Your task to perform on an android device: Go to display settings Image 0: 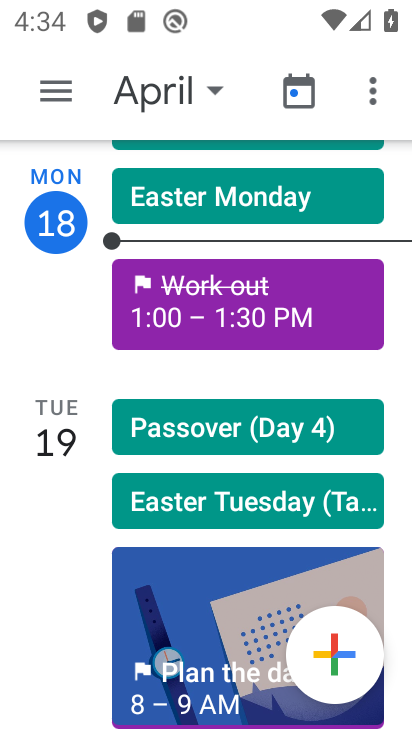
Step 0: drag from (185, 555) to (262, 155)
Your task to perform on an android device: Go to display settings Image 1: 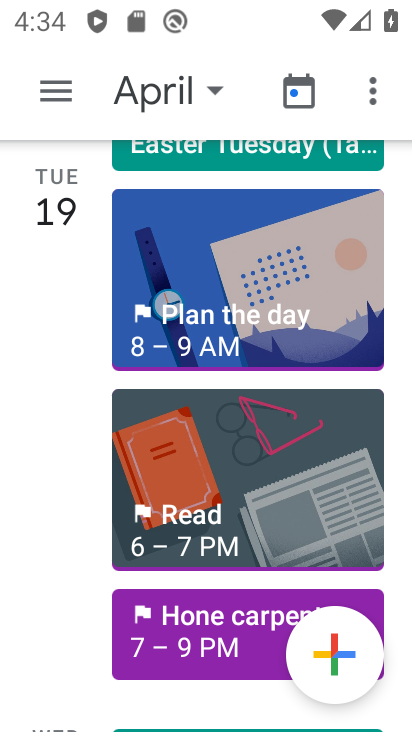
Step 1: press home button
Your task to perform on an android device: Go to display settings Image 2: 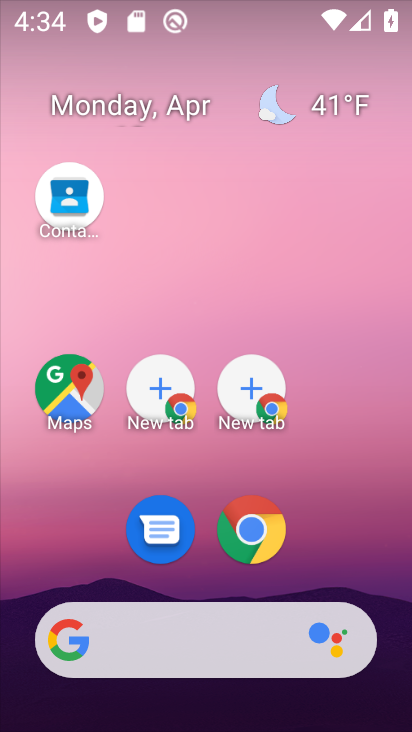
Step 2: drag from (115, 578) to (308, 0)
Your task to perform on an android device: Go to display settings Image 3: 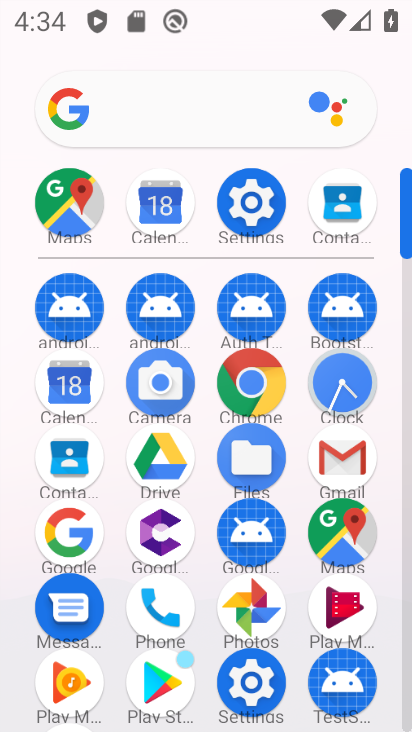
Step 3: click (254, 188)
Your task to perform on an android device: Go to display settings Image 4: 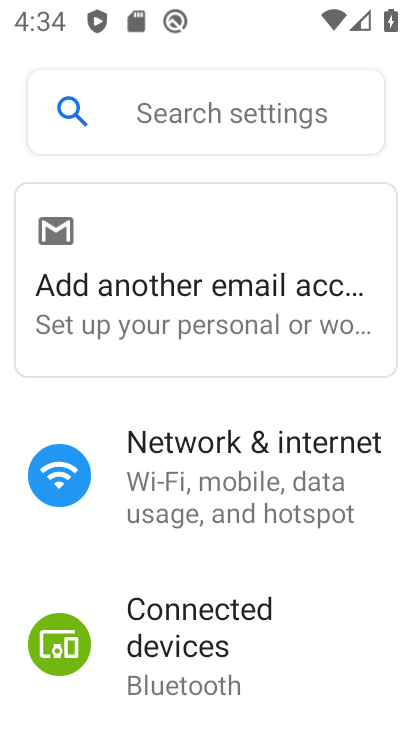
Step 4: drag from (221, 610) to (322, 9)
Your task to perform on an android device: Go to display settings Image 5: 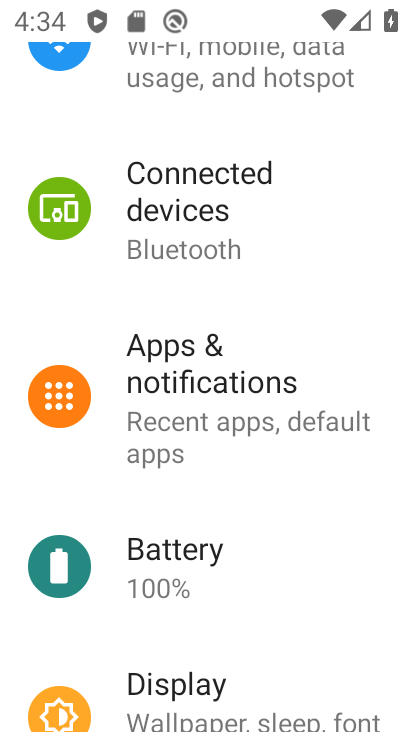
Step 5: drag from (174, 638) to (261, 215)
Your task to perform on an android device: Go to display settings Image 6: 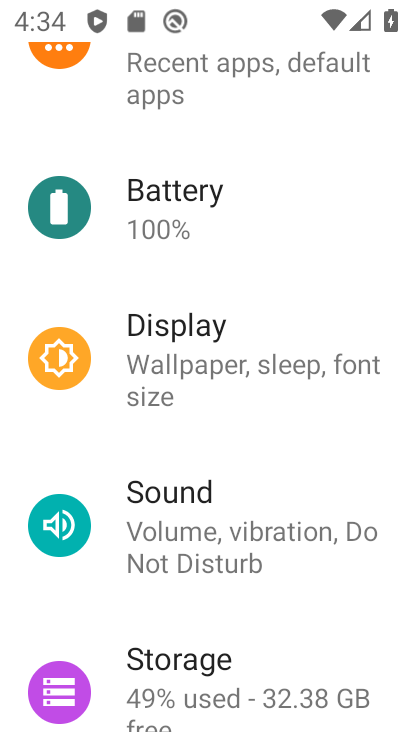
Step 6: click (214, 336)
Your task to perform on an android device: Go to display settings Image 7: 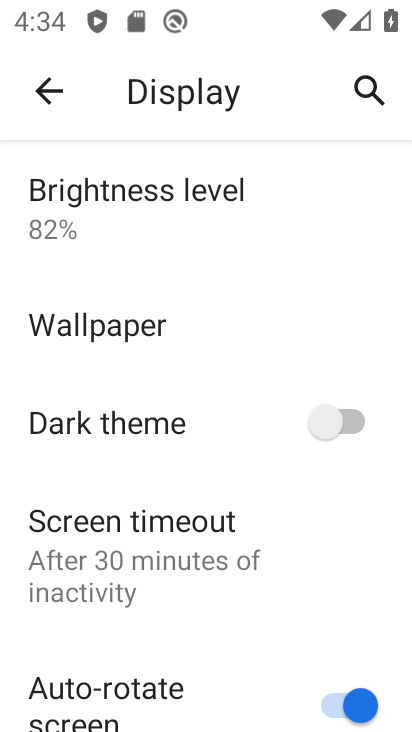
Step 7: task complete